Your task to perform on an android device: empty trash in the gmail app Image 0: 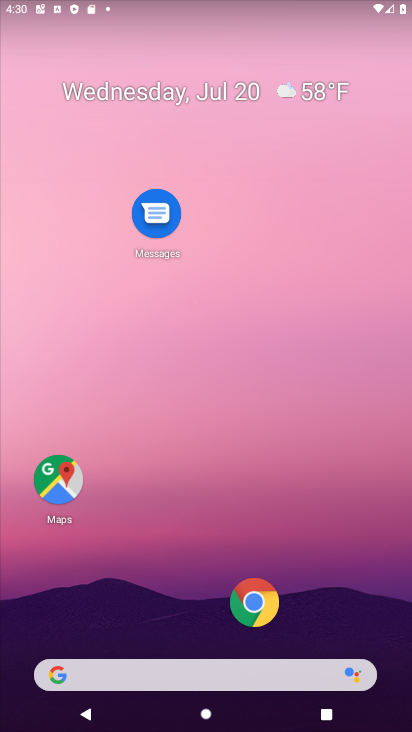
Step 0: drag from (192, 572) to (245, 251)
Your task to perform on an android device: empty trash in the gmail app Image 1: 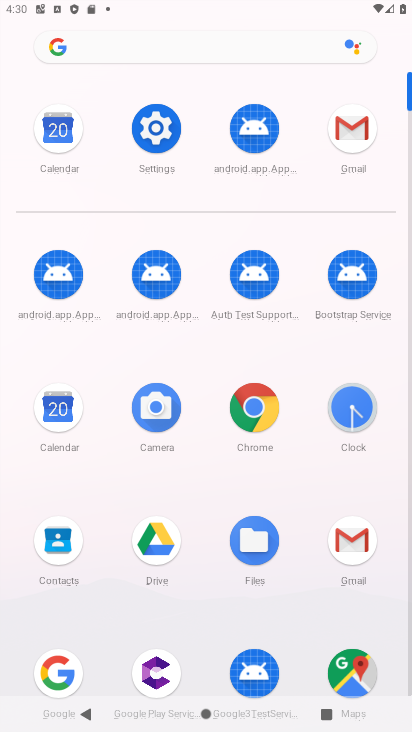
Step 1: click (343, 145)
Your task to perform on an android device: empty trash in the gmail app Image 2: 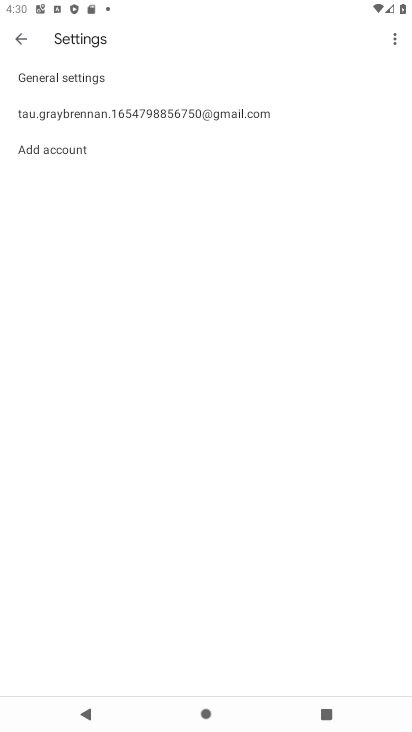
Step 2: click (135, 107)
Your task to perform on an android device: empty trash in the gmail app Image 3: 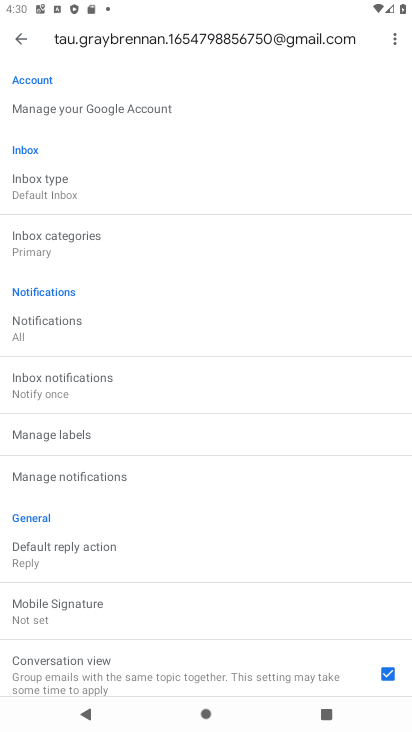
Step 3: click (18, 45)
Your task to perform on an android device: empty trash in the gmail app Image 4: 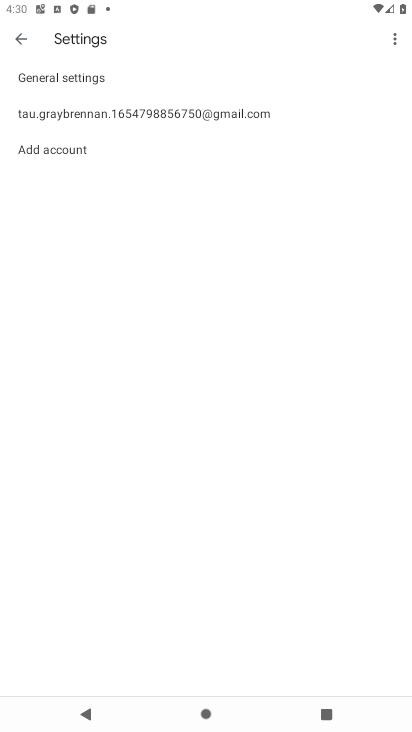
Step 4: click (18, 45)
Your task to perform on an android device: empty trash in the gmail app Image 5: 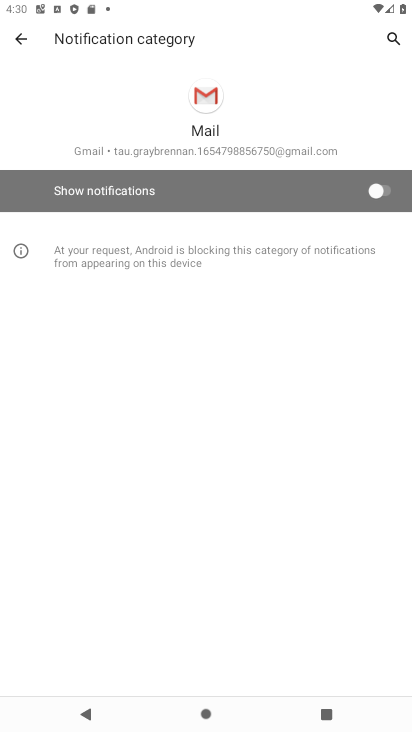
Step 5: click (18, 45)
Your task to perform on an android device: empty trash in the gmail app Image 6: 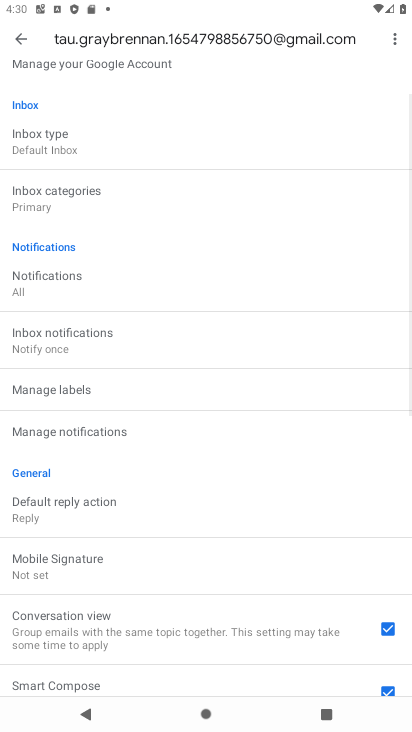
Step 6: click (18, 45)
Your task to perform on an android device: empty trash in the gmail app Image 7: 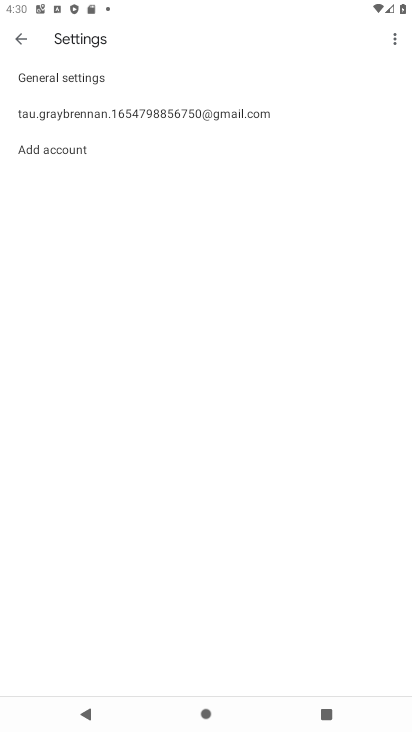
Step 7: click (18, 45)
Your task to perform on an android device: empty trash in the gmail app Image 8: 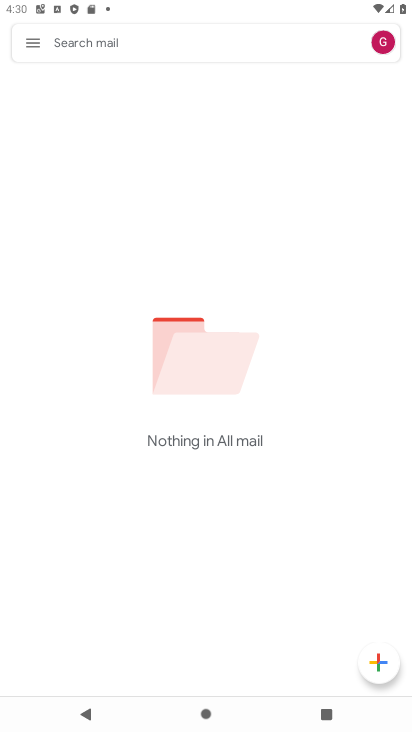
Step 8: click (33, 46)
Your task to perform on an android device: empty trash in the gmail app Image 9: 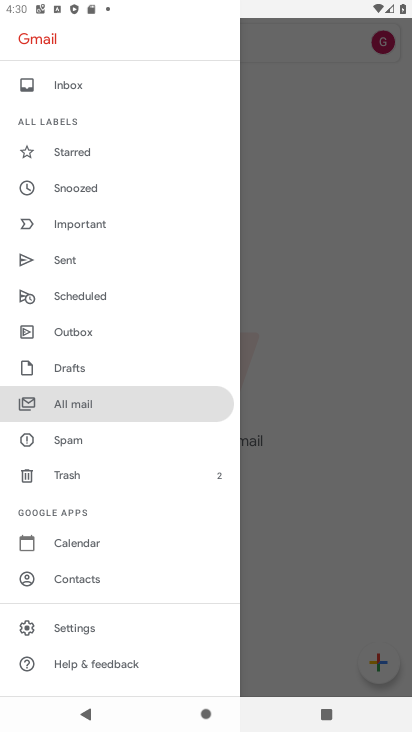
Step 9: click (69, 477)
Your task to perform on an android device: empty trash in the gmail app Image 10: 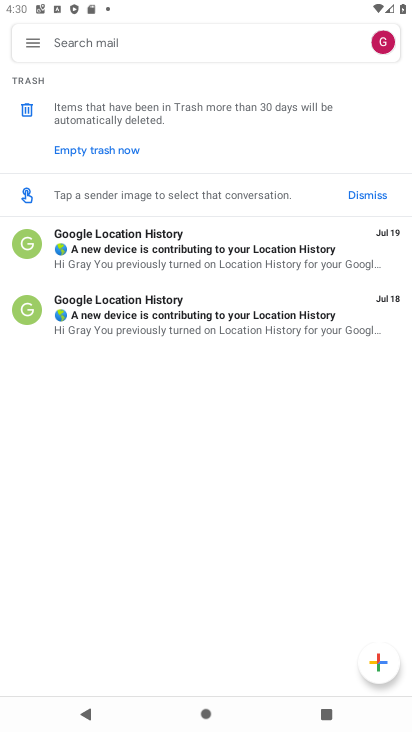
Step 10: click (121, 142)
Your task to perform on an android device: empty trash in the gmail app Image 11: 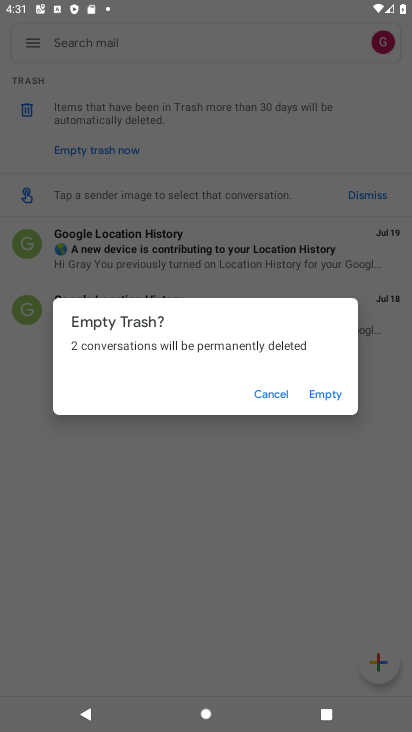
Step 11: click (328, 393)
Your task to perform on an android device: empty trash in the gmail app Image 12: 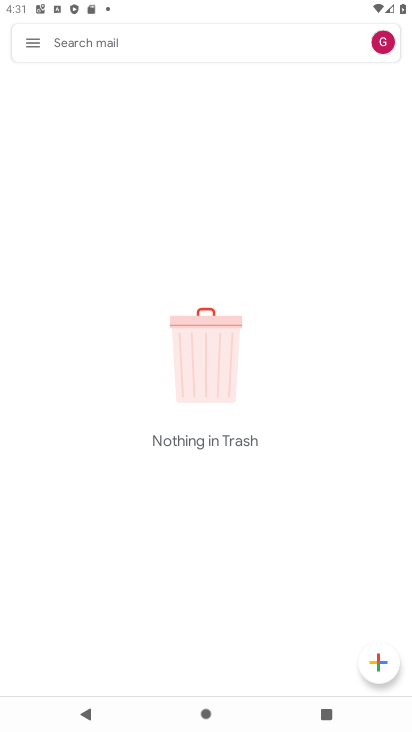
Step 12: task complete